Your task to perform on an android device: turn off data saver in the chrome app Image 0: 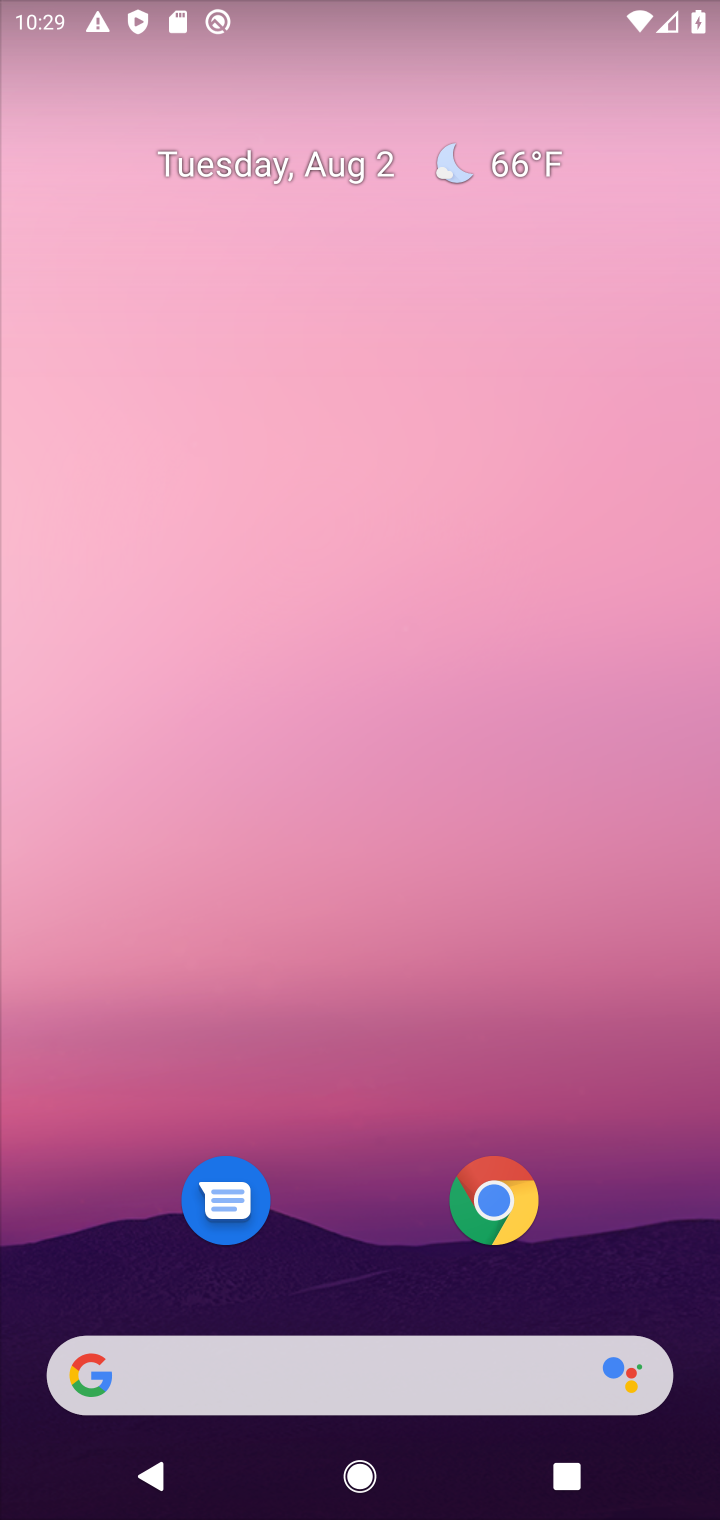
Step 0: click (496, 1204)
Your task to perform on an android device: turn off data saver in the chrome app Image 1: 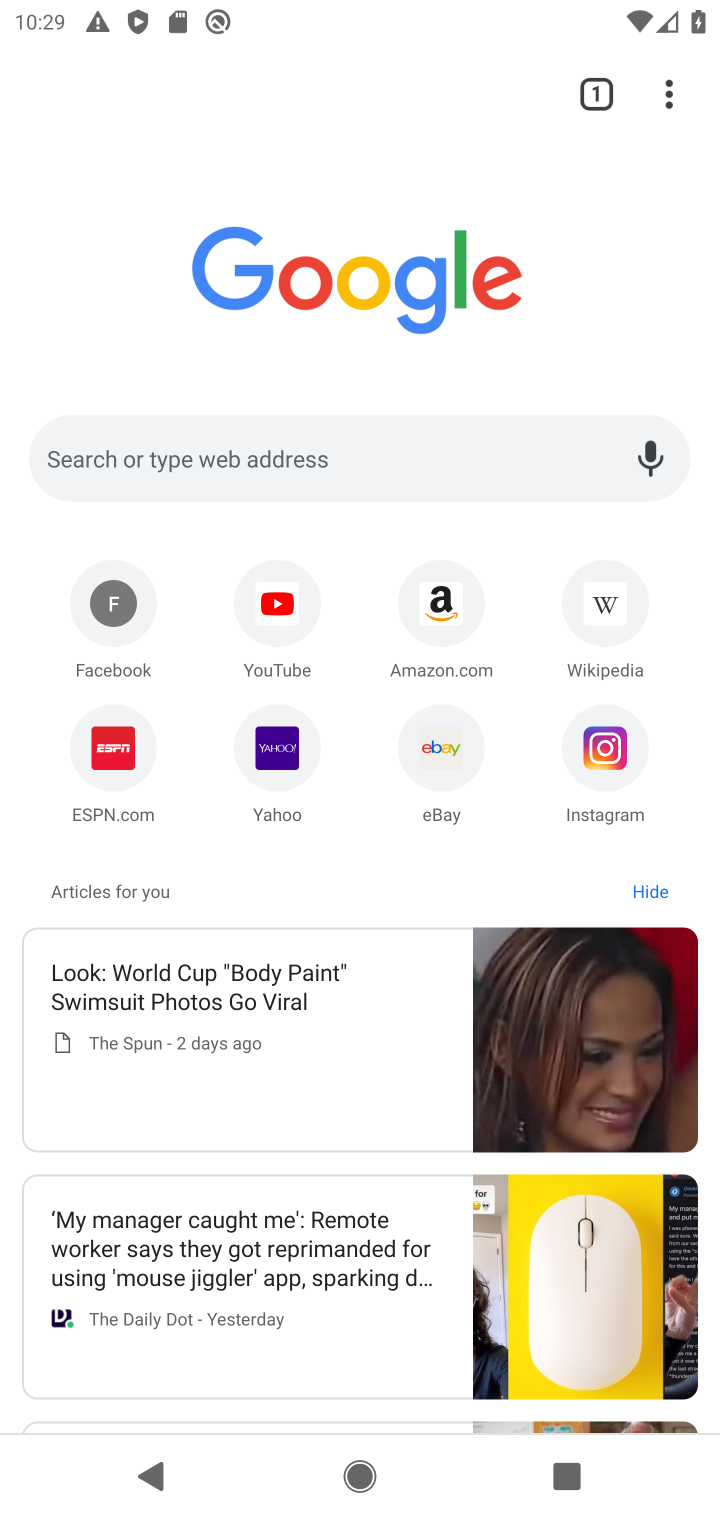
Step 1: click (665, 108)
Your task to perform on an android device: turn off data saver in the chrome app Image 2: 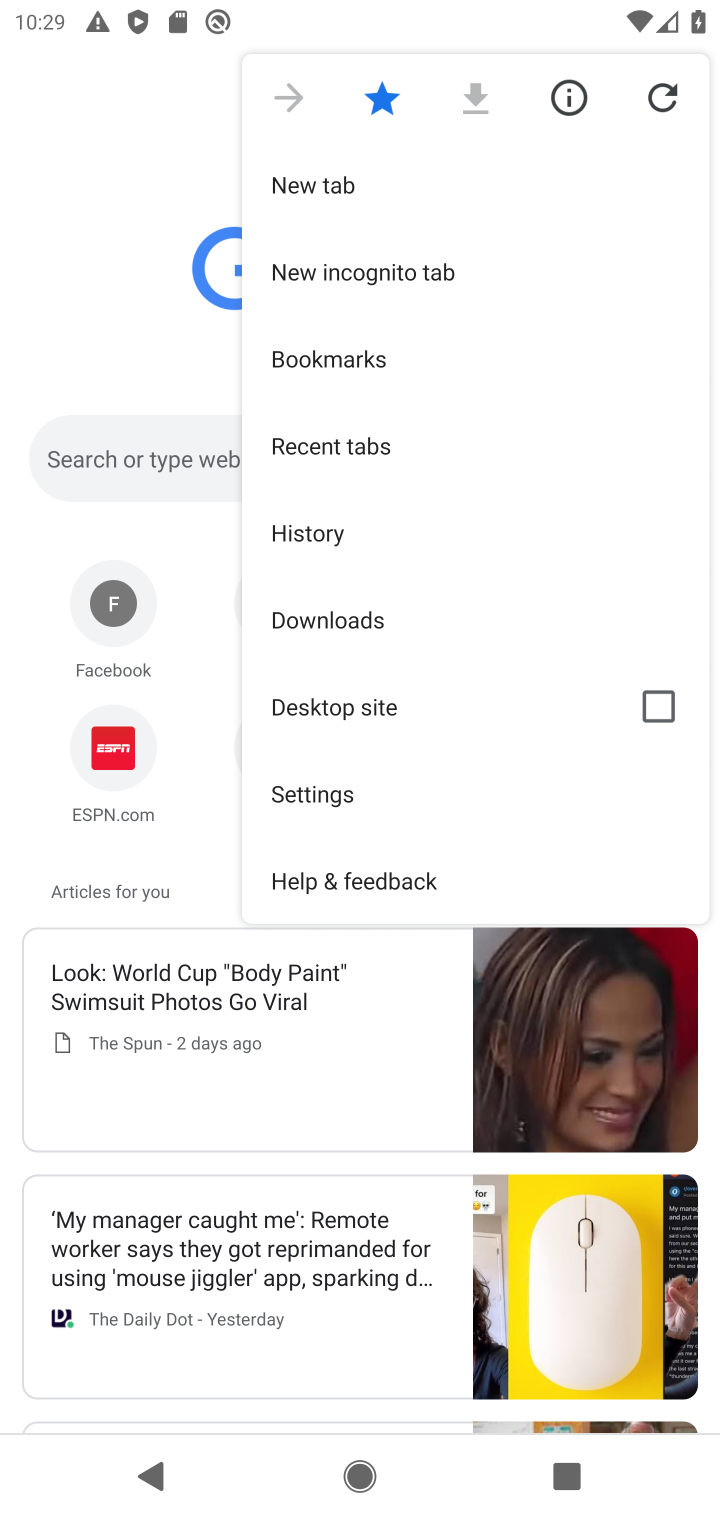
Step 2: click (286, 790)
Your task to perform on an android device: turn off data saver in the chrome app Image 3: 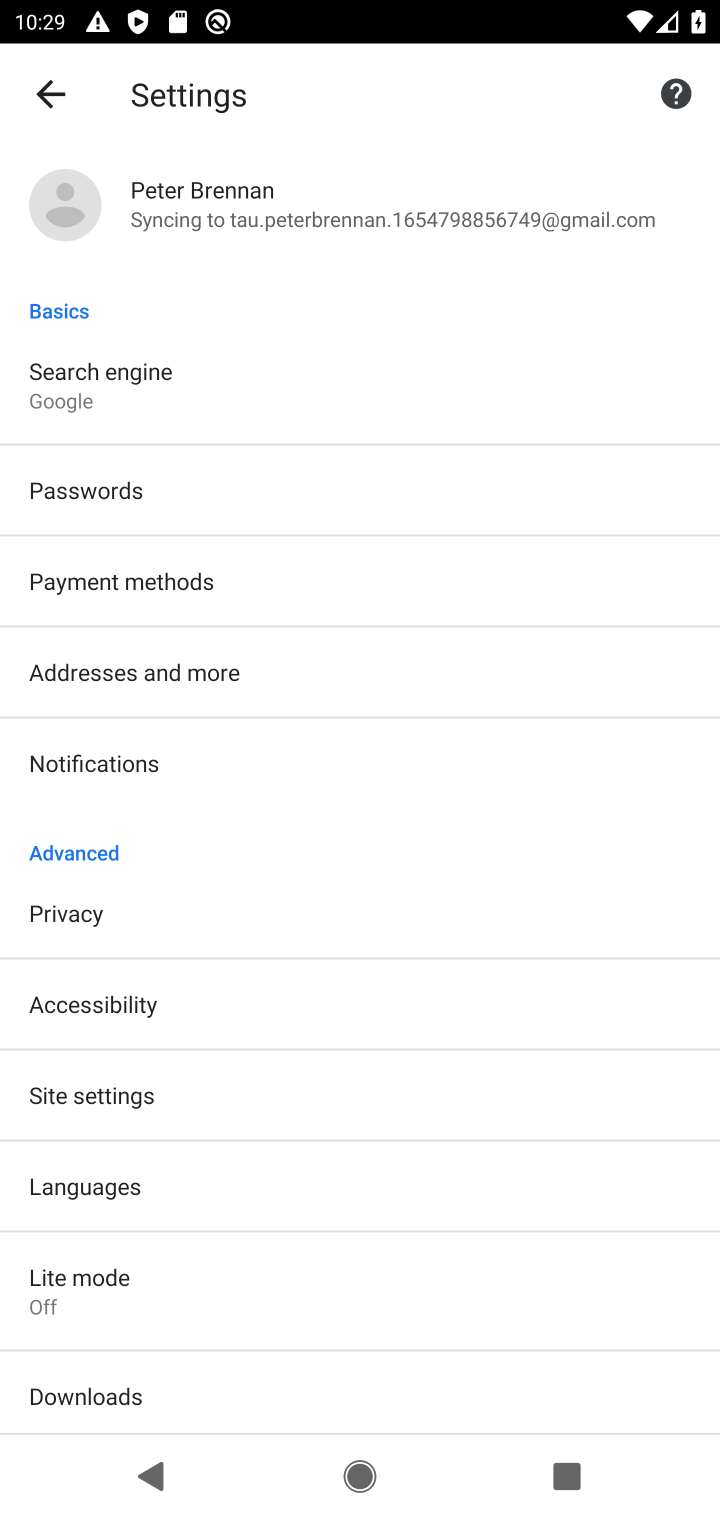
Step 3: click (88, 1285)
Your task to perform on an android device: turn off data saver in the chrome app Image 4: 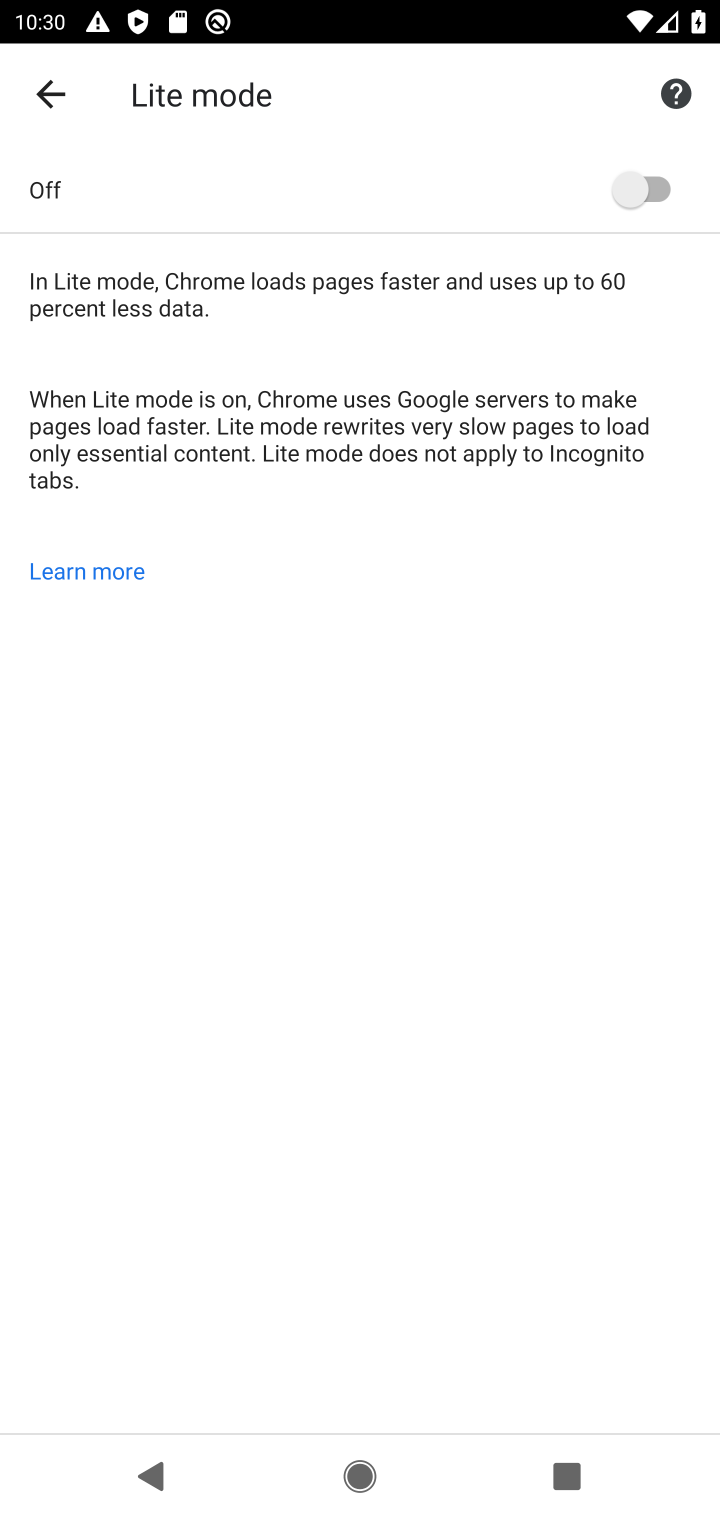
Step 4: task complete